Your task to perform on an android device: Go to display settings Image 0: 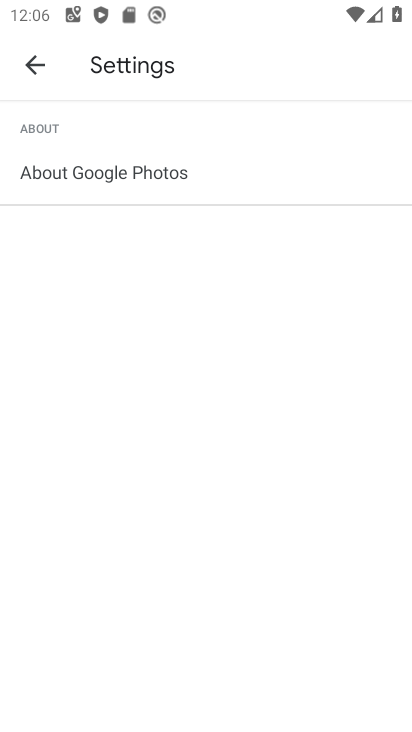
Step 0: press home button
Your task to perform on an android device: Go to display settings Image 1: 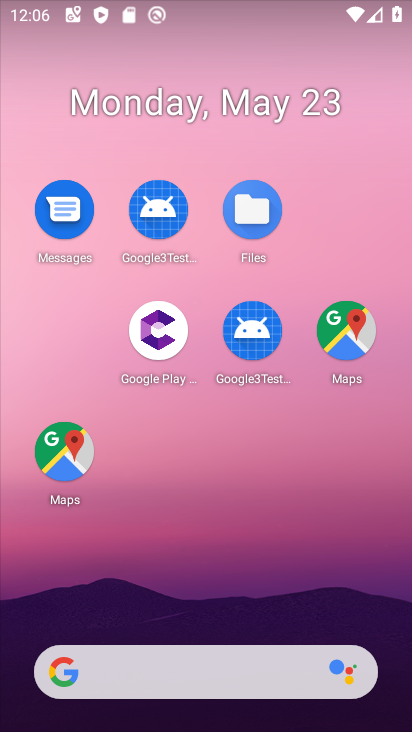
Step 1: drag from (230, 619) to (168, 67)
Your task to perform on an android device: Go to display settings Image 2: 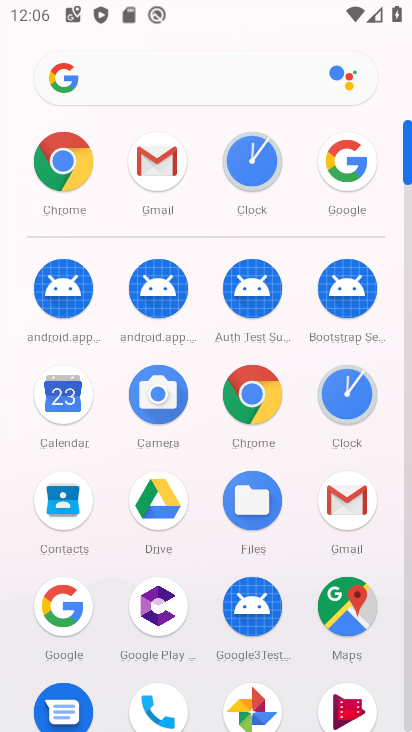
Step 2: drag from (218, 578) to (190, 159)
Your task to perform on an android device: Go to display settings Image 3: 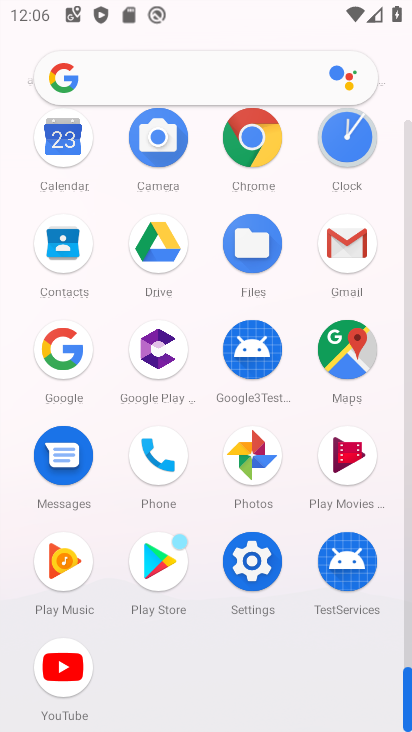
Step 3: click (268, 541)
Your task to perform on an android device: Go to display settings Image 4: 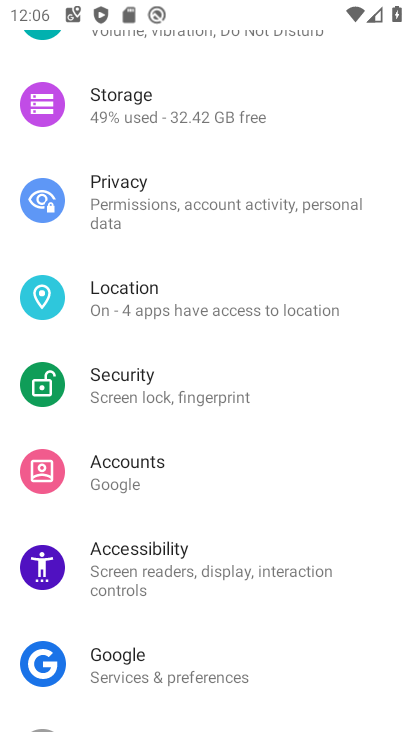
Step 4: drag from (293, 273) to (208, 685)
Your task to perform on an android device: Go to display settings Image 5: 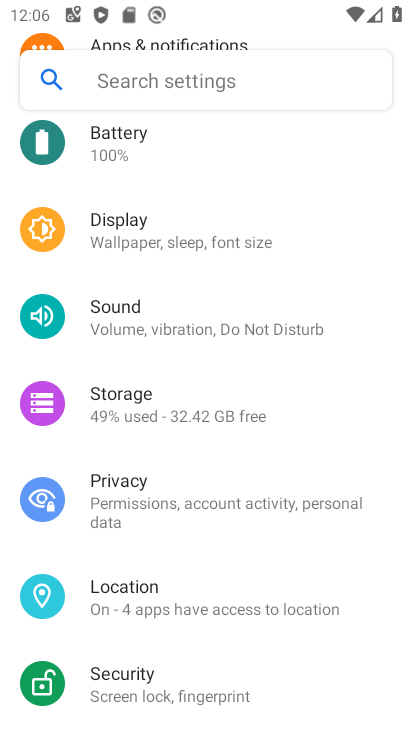
Step 5: click (127, 226)
Your task to perform on an android device: Go to display settings Image 6: 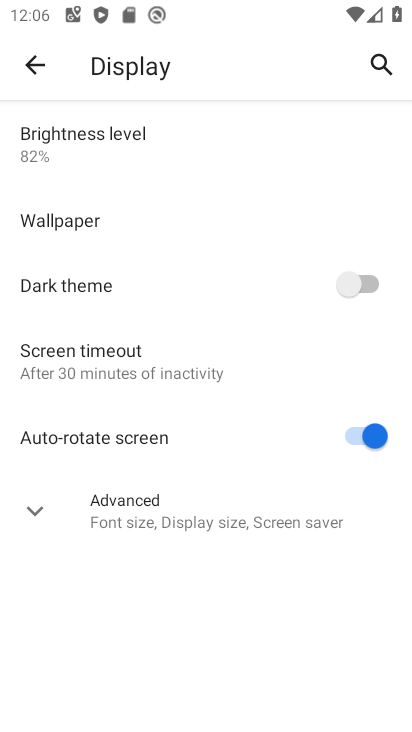
Step 6: click (102, 498)
Your task to perform on an android device: Go to display settings Image 7: 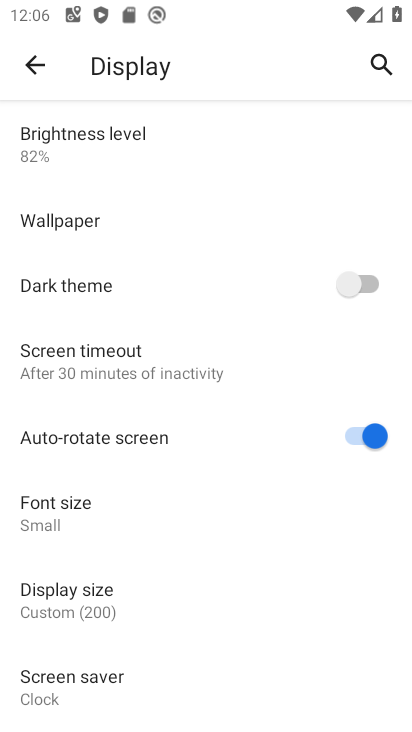
Step 7: task complete